Your task to perform on an android device: turn on location history Image 0: 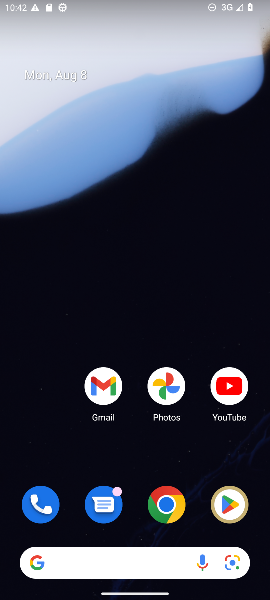
Step 0: drag from (143, 171) to (151, 21)
Your task to perform on an android device: turn on location history Image 1: 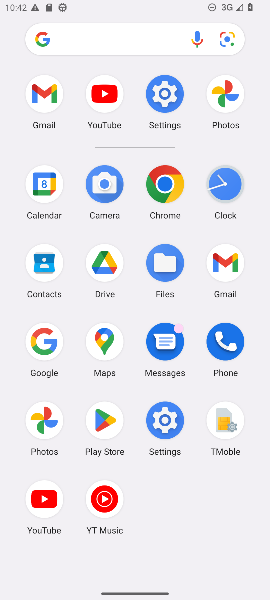
Step 1: click (173, 443)
Your task to perform on an android device: turn on location history Image 2: 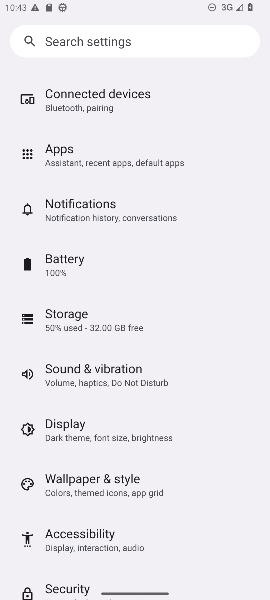
Step 2: drag from (103, 503) to (106, 277)
Your task to perform on an android device: turn on location history Image 3: 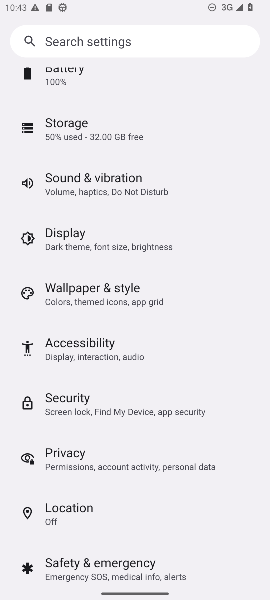
Step 3: click (86, 517)
Your task to perform on an android device: turn on location history Image 4: 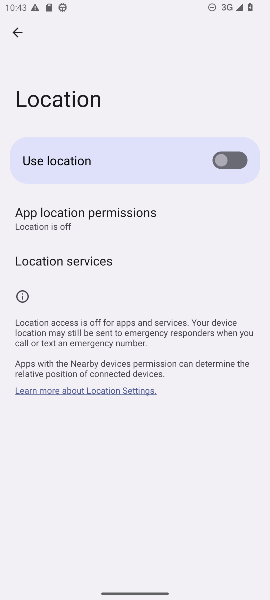
Step 4: click (65, 263)
Your task to perform on an android device: turn on location history Image 5: 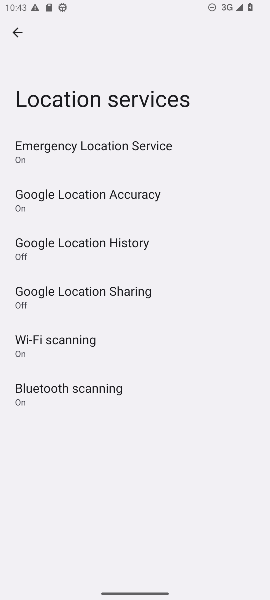
Step 5: click (114, 243)
Your task to perform on an android device: turn on location history Image 6: 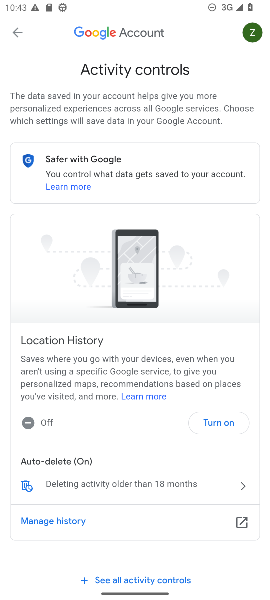
Step 6: click (217, 430)
Your task to perform on an android device: turn on location history Image 7: 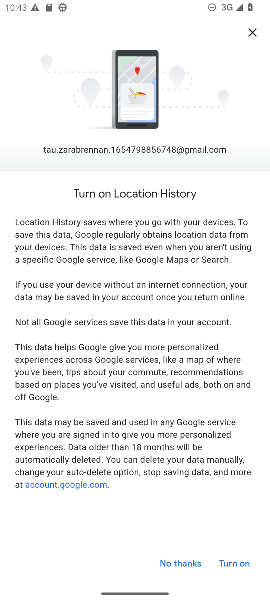
Step 7: click (236, 562)
Your task to perform on an android device: turn on location history Image 8: 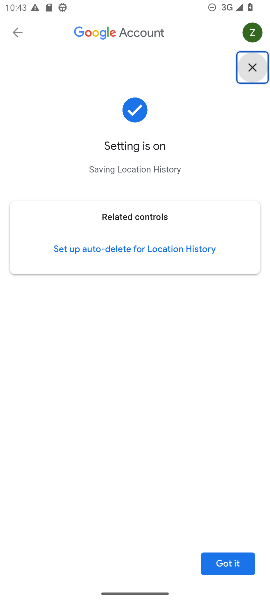
Step 8: click (228, 566)
Your task to perform on an android device: turn on location history Image 9: 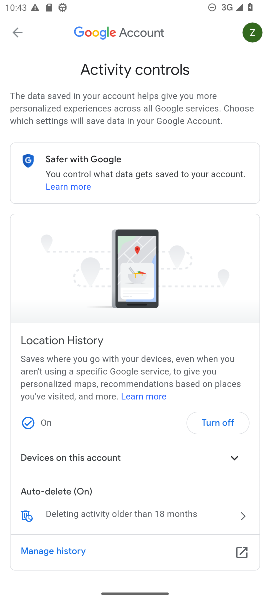
Step 9: task complete